Your task to perform on an android device: Open Google Chrome and open the bookmarks view Image 0: 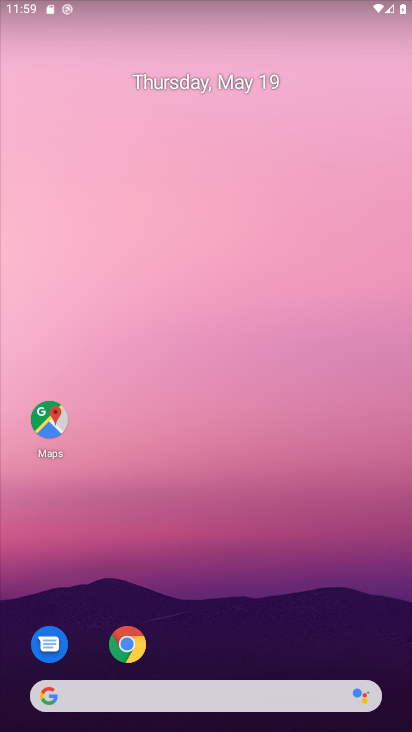
Step 0: click (133, 645)
Your task to perform on an android device: Open Google Chrome and open the bookmarks view Image 1: 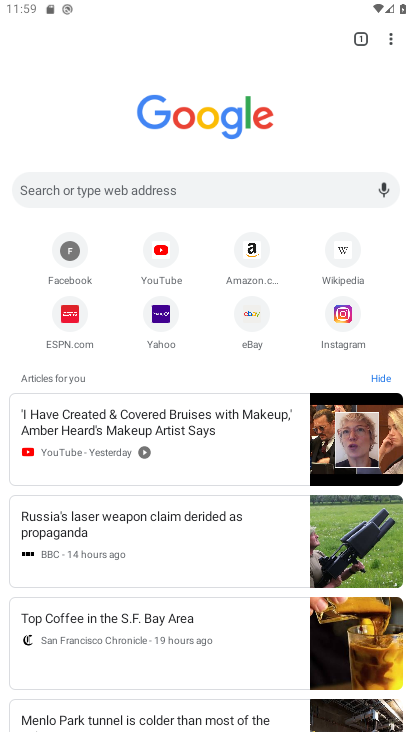
Step 1: click (395, 40)
Your task to perform on an android device: Open Google Chrome and open the bookmarks view Image 2: 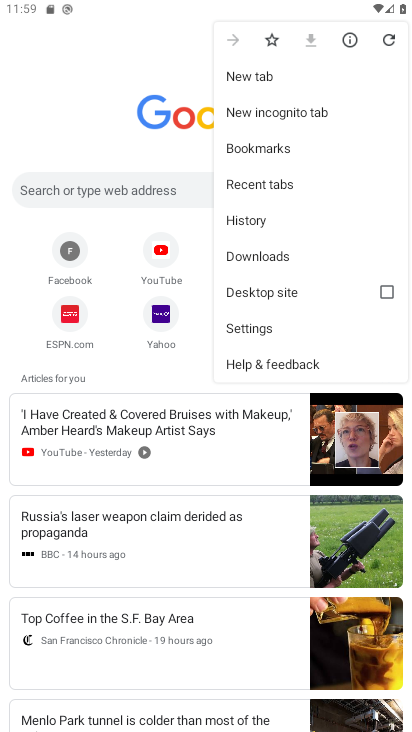
Step 2: click (254, 149)
Your task to perform on an android device: Open Google Chrome and open the bookmarks view Image 3: 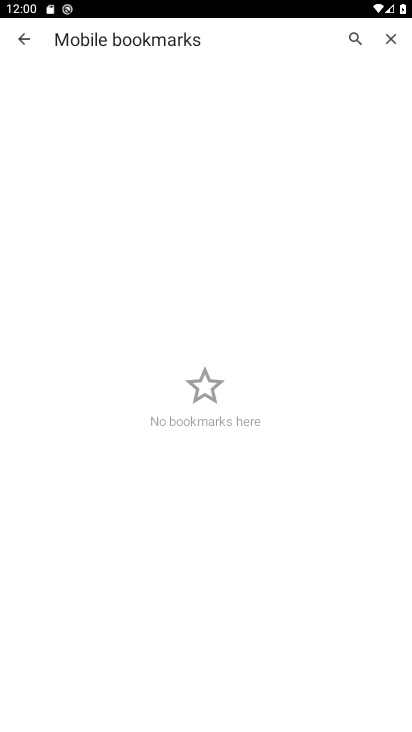
Step 3: task complete